Your task to perform on an android device: remove spam from my inbox in the gmail app Image 0: 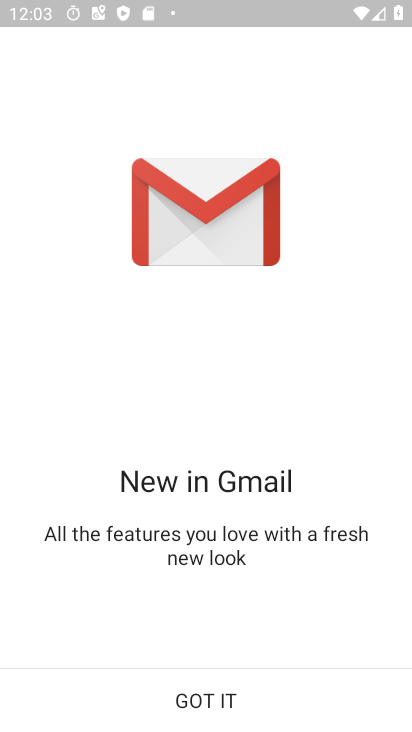
Step 0: press home button
Your task to perform on an android device: remove spam from my inbox in the gmail app Image 1: 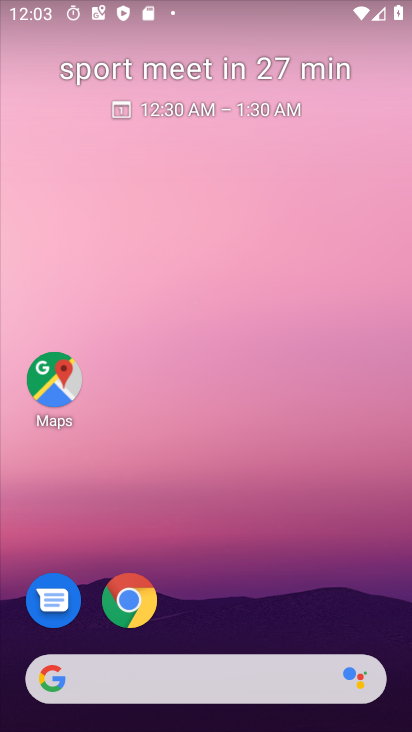
Step 1: drag from (208, 507) to (268, 106)
Your task to perform on an android device: remove spam from my inbox in the gmail app Image 2: 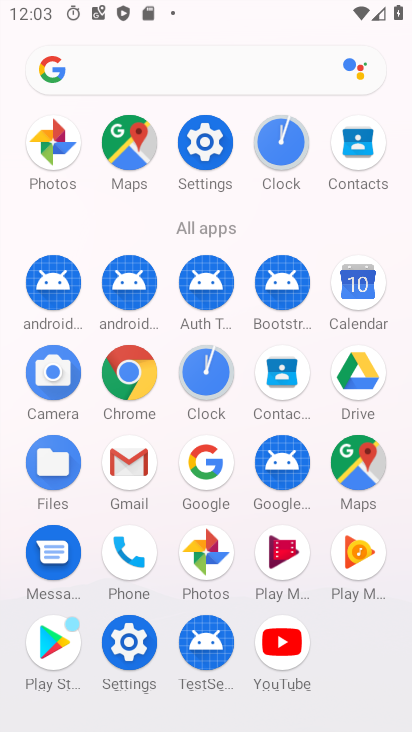
Step 2: click (123, 464)
Your task to perform on an android device: remove spam from my inbox in the gmail app Image 3: 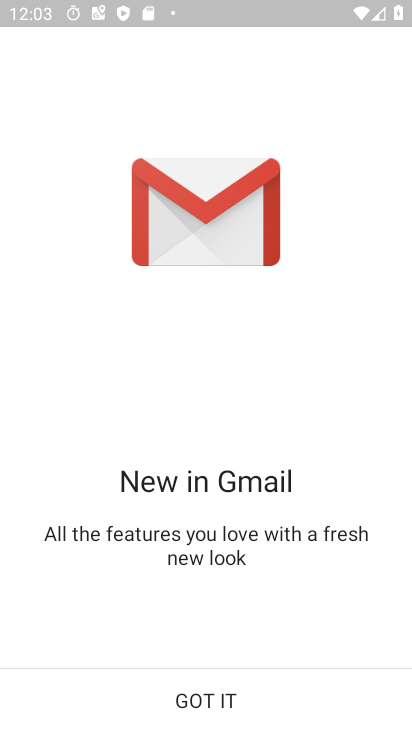
Step 3: click (224, 717)
Your task to perform on an android device: remove spam from my inbox in the gmail app Image 4: 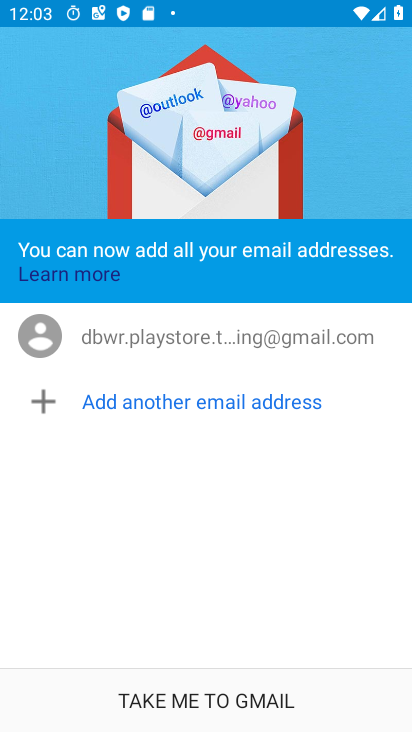
Step 4: click (224, 717)
Your task to perform on an android device: remove spam from my inbox in the gmail app Image 5: 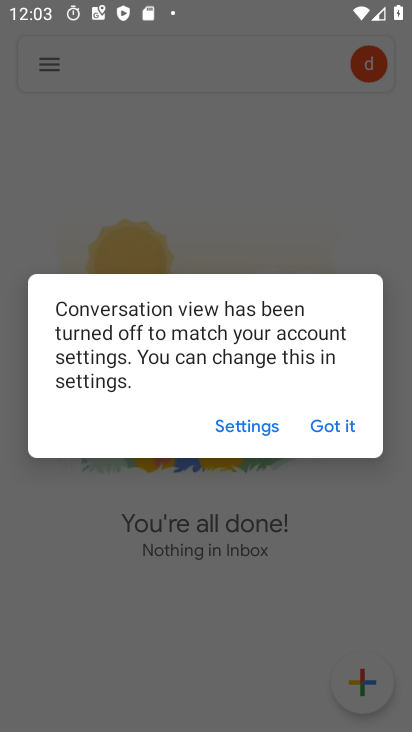
Step 5: click (340, 419)
Your task to perform on an android device: remove spam from my inbox in the gmail app Image 6: 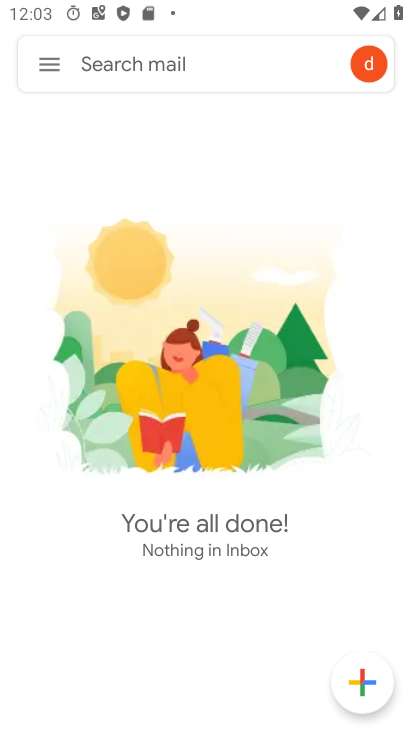
Step 6: click (47, 60)
Your task to perform on an android device: remove spam from my inbox in the gmail app Image 7: 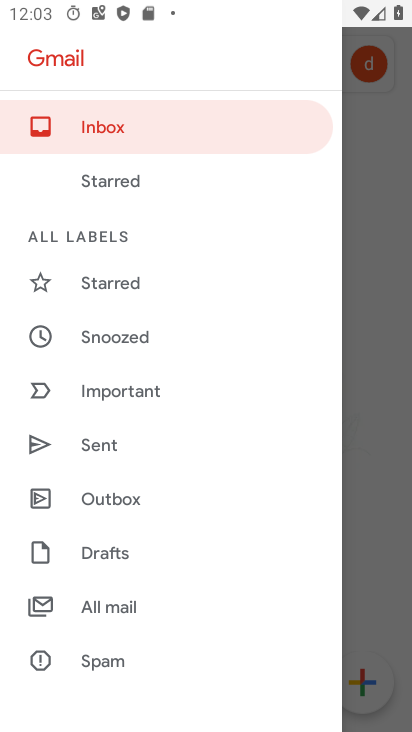
Step 7: click (100, 668)
Your task to perform on an android device: remove spam from my inbox in the gmail app Image 8: 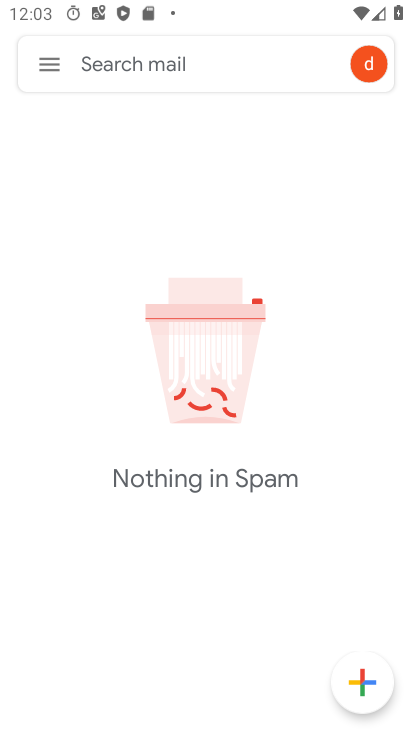
Step 8: task complete